Your task to perform on an android device: find photos in the google photos app Image 0: 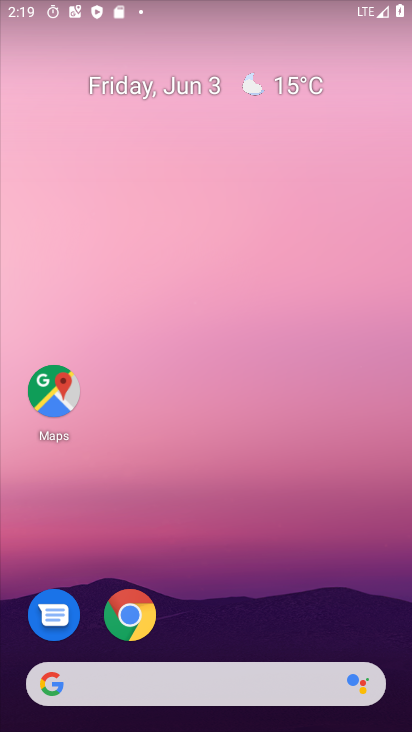
Step 0: drag from (341, 3) to (112, 42)
Your task to perform on an android device: find photos in the google photos app Image 1: 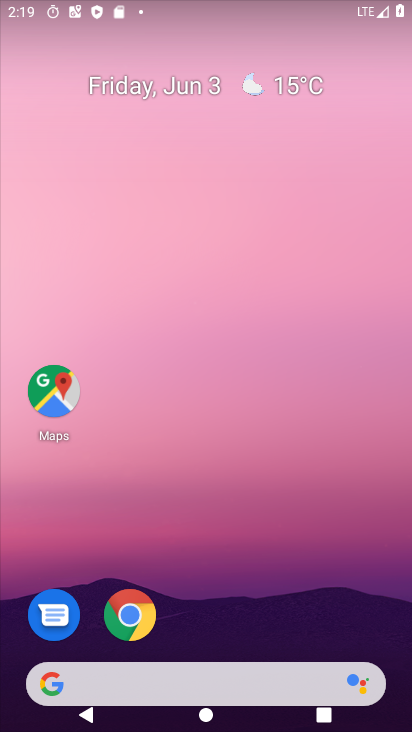
Step 1: drag from (269, 652) to (411, 613)
Your task to perform on an android device: find photos in the google photos app Image 2: 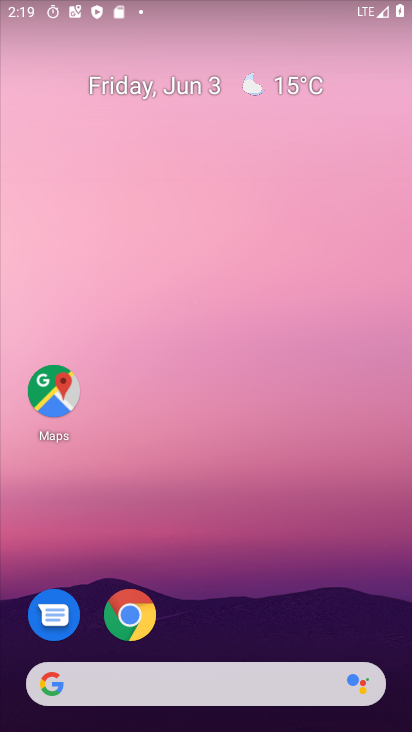
Step 2: drag from (191, 634) to (191, 75)
Your task to perform on an android device: find photos in the google photos app Image 3: 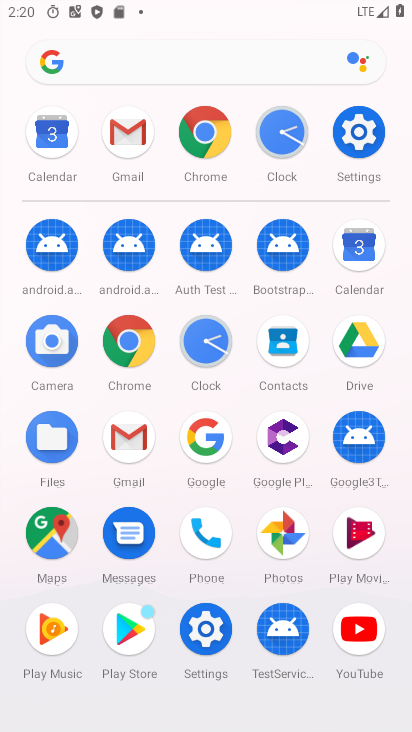
Step 3: click (266, 525)
Your task to perform on an android device: find photos in the google photos app Image 4: 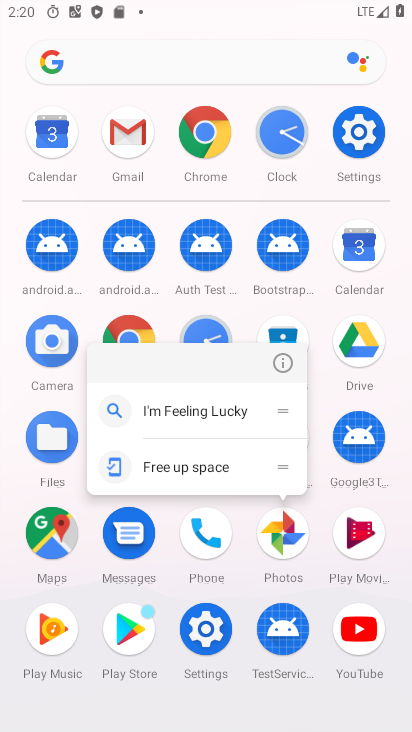
Step 4: click (274, 361)
Your task to perform on an android device: find photos in the google photos app Image 5: 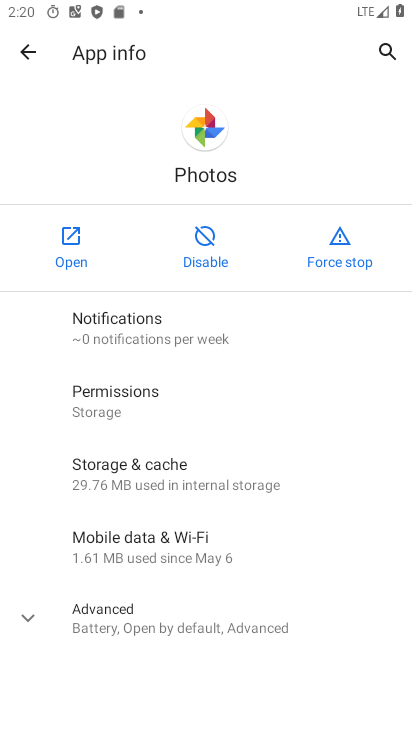
Step 5: click (66, 253)
Your task to perform on an android device: find photos in the google photos app Image 6: 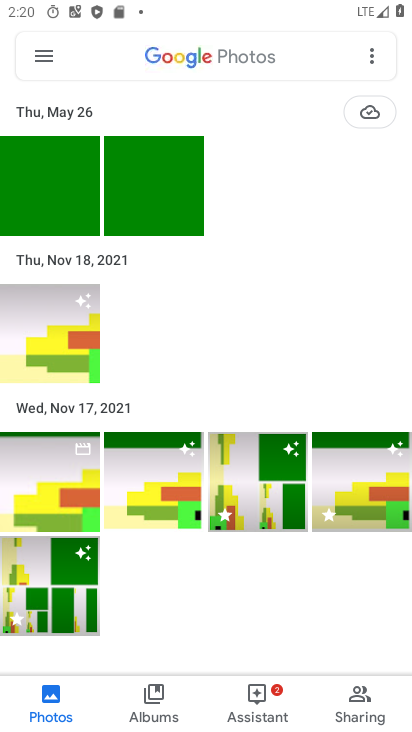
Step 6: drag from (217, 558) to (261, 237)
Your task to perform on an android device: find photos in the google photos app Image 7: 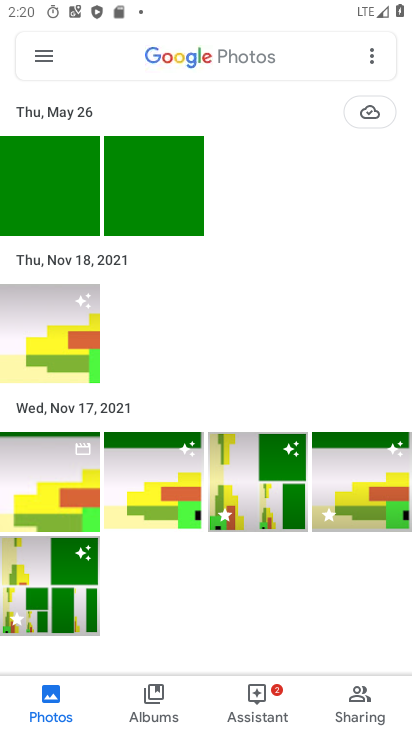
Step 7: click (64, 448)
Your task to perform on an android device: find photos in the google photos app Image 8: 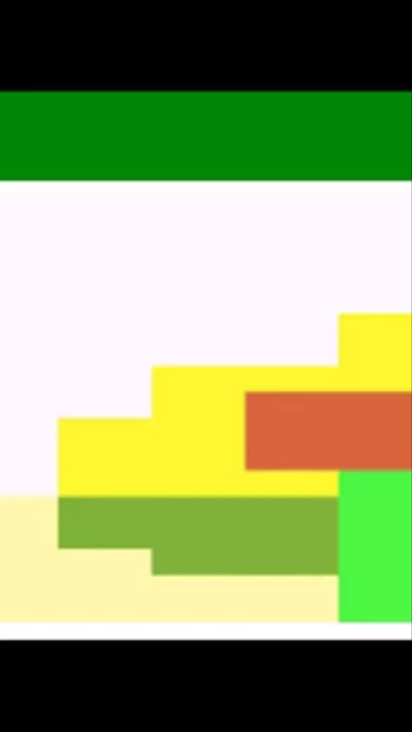
Step 8: task complete